Your task to perform on an android device: see sites visited before in the chrome app Image 0: 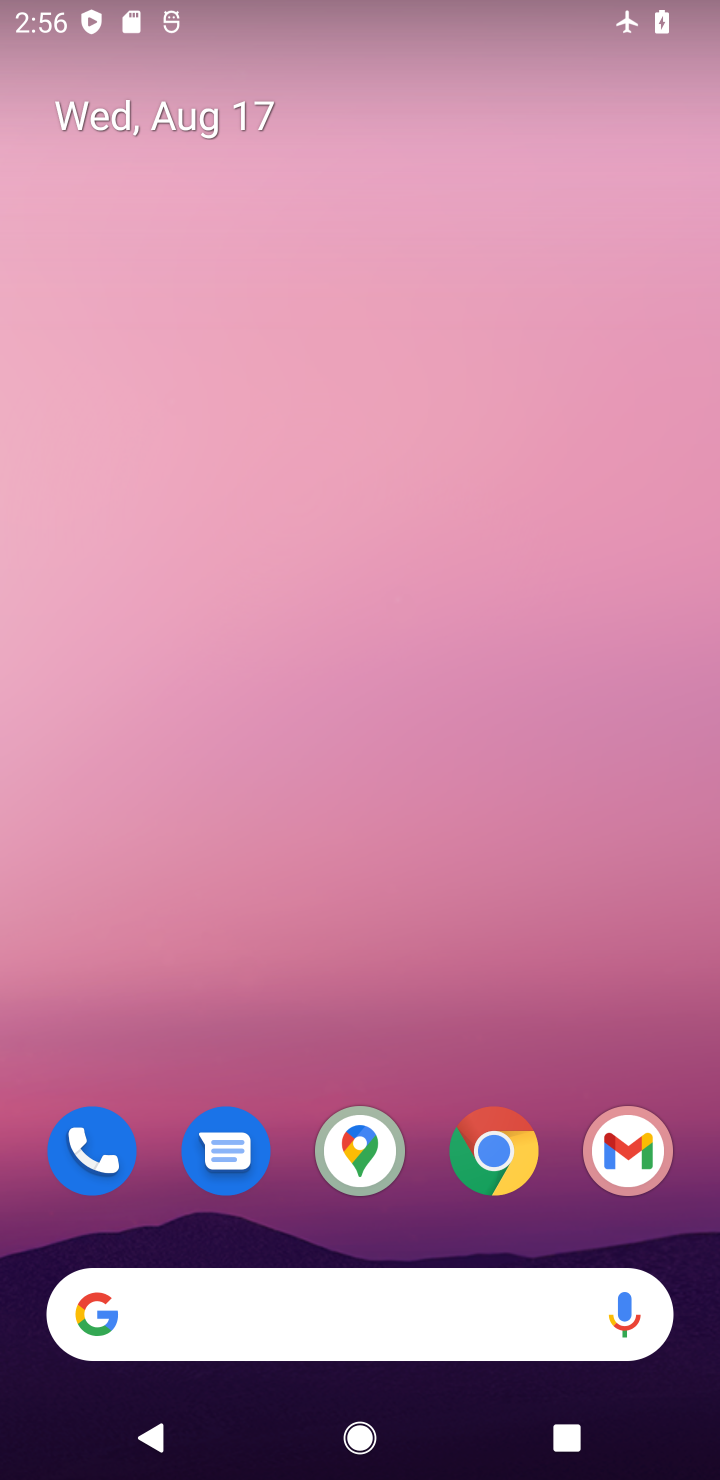
Step 0: drag from (266, 763) to (180, 7)
Your task to perform on an android device: see sites visited before in the chrome app Image 1: 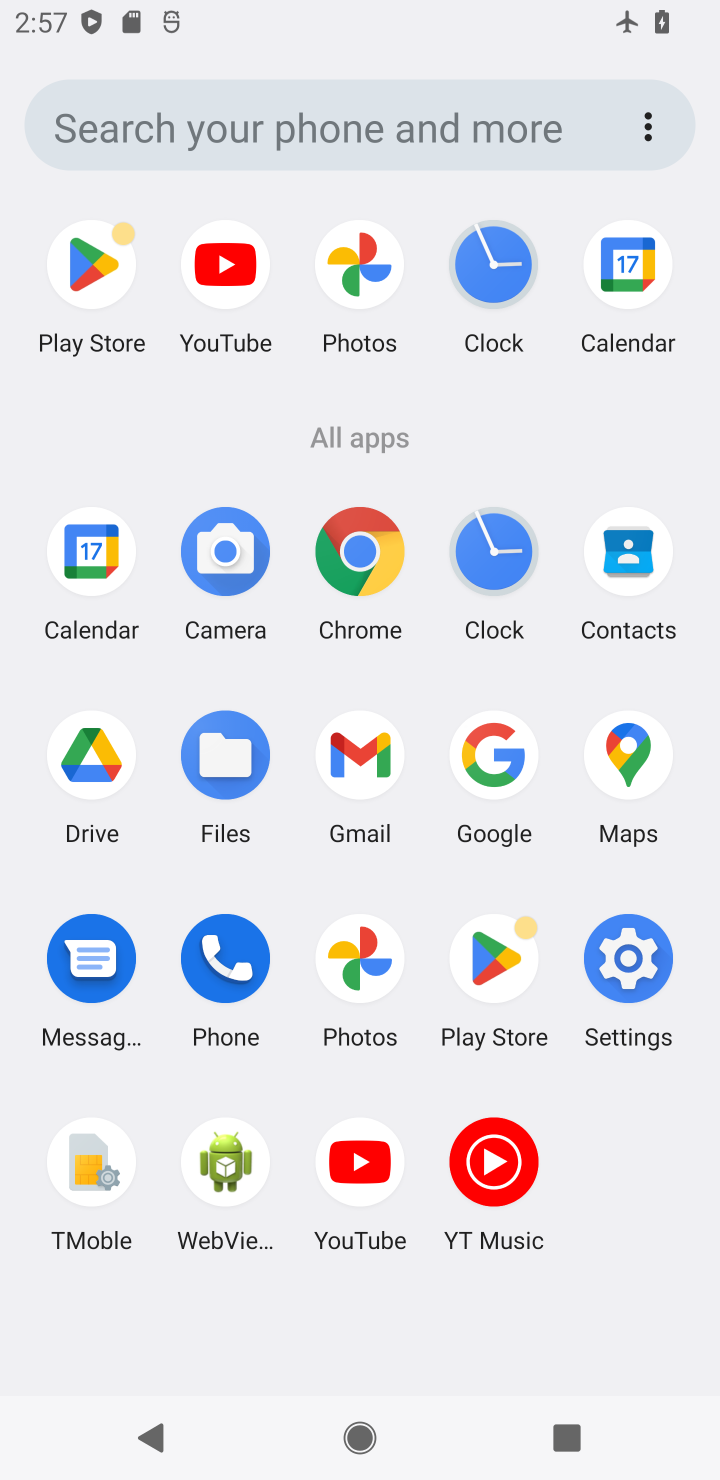
Step 1: click (344, 553)
Your task to perform on an android device: see sites visited before in the chrome app Image 2: 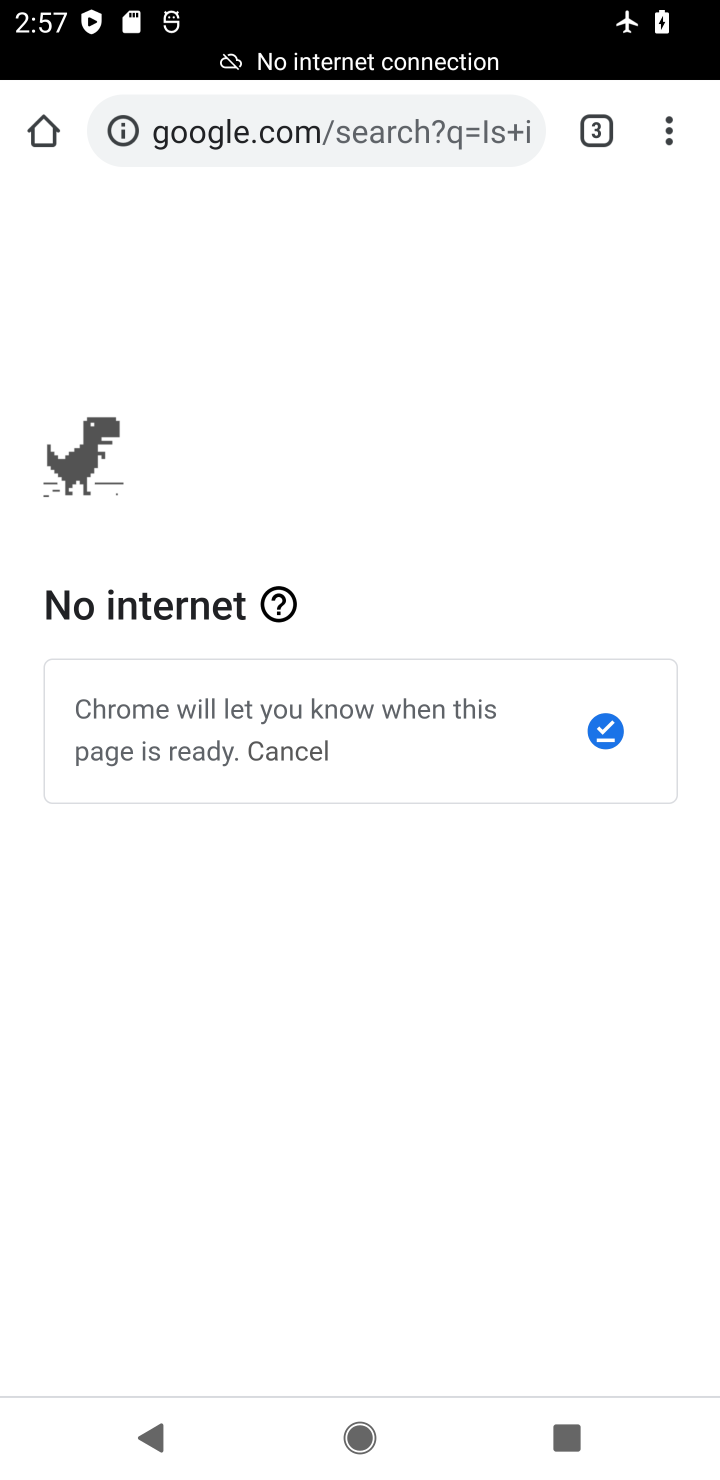
Step 2: click (673, 122)
Your task to perform on an android device: see sites visited before in the chrome app Image 3: 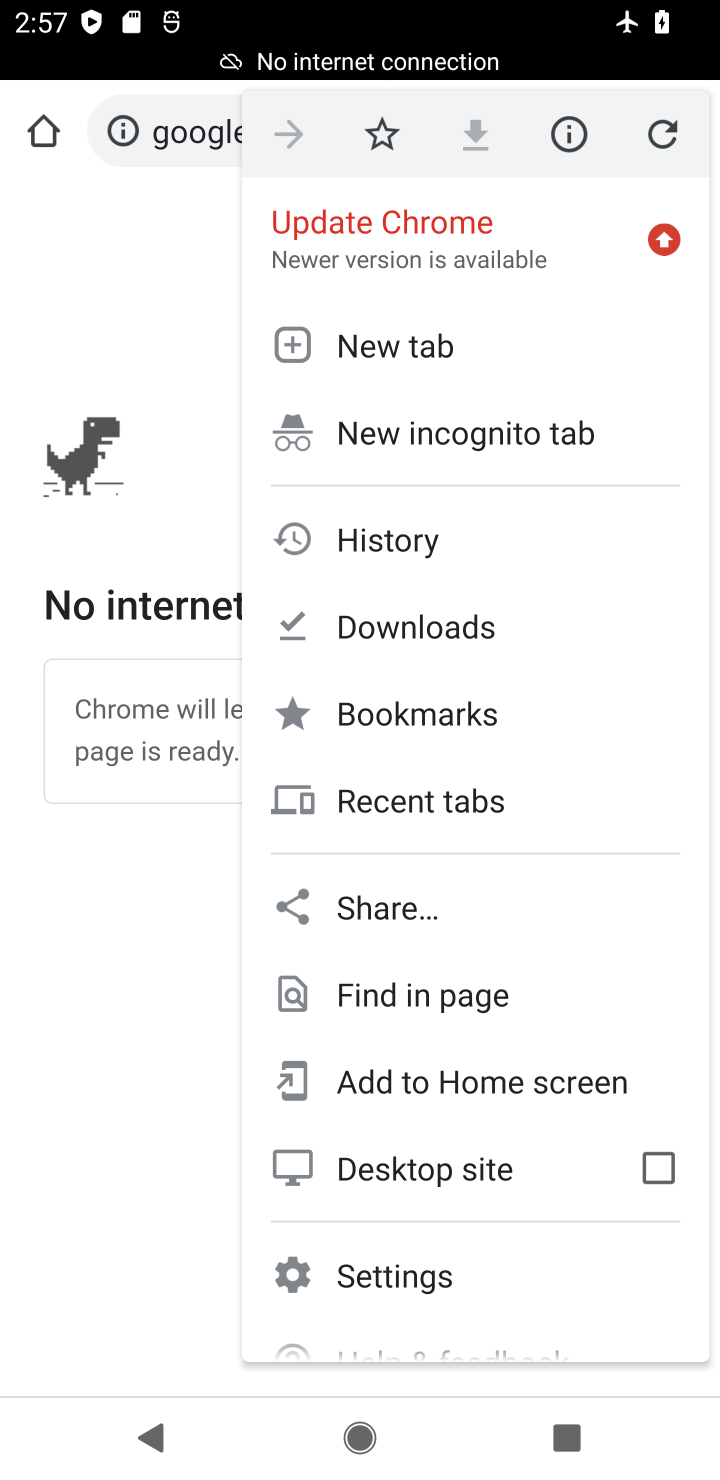
Step 3: click (329, 534)
Your task to perform on an android device: see sites visited before in the chrome app Image 4: 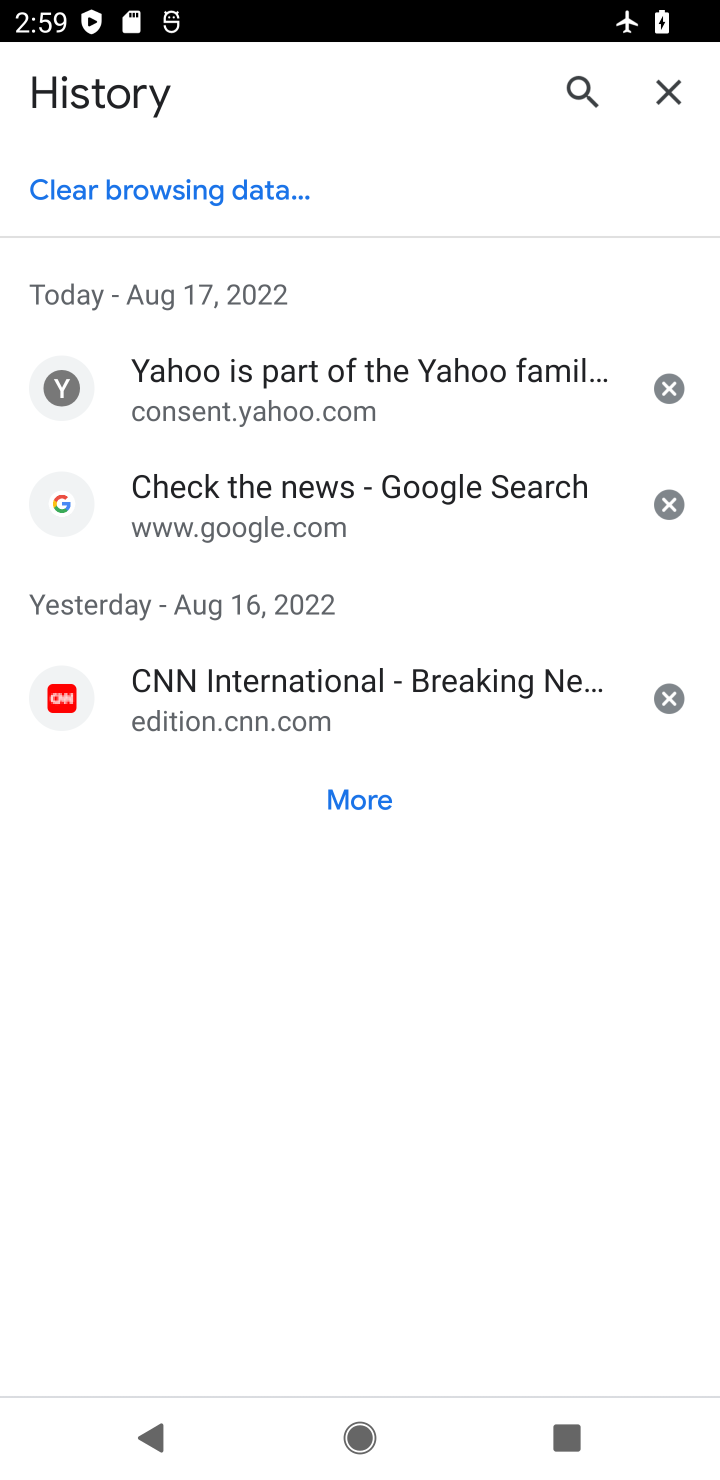
Step 4: task complete